Your task to perform on an android device: Go to accessibility settings Image 0: 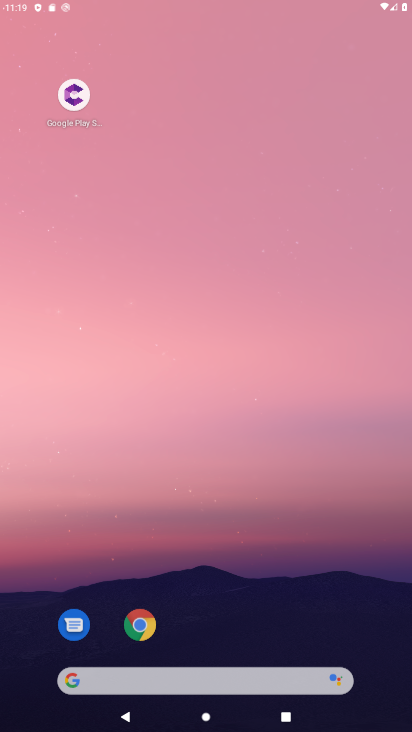
Step 0: press home button
Your task to perform on an android device: Go to accessibility settings Image 1: 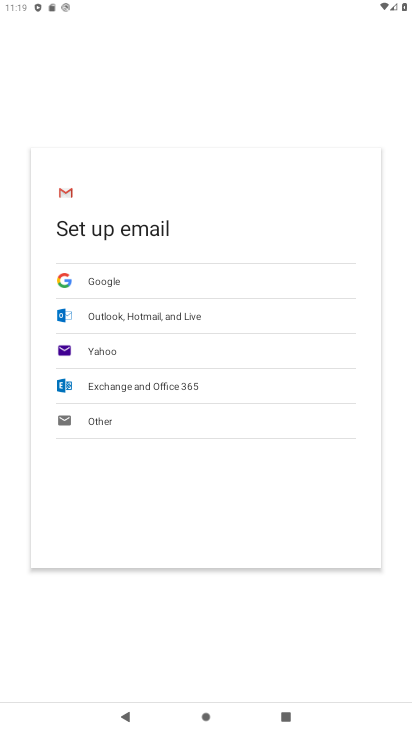
Step 1: press home button
Your task to perform on an android device: Go to accessibility settings Image 2: 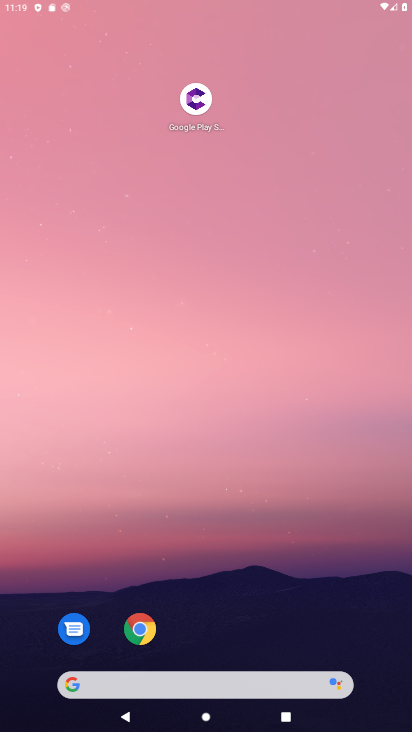
Step 2: press home button
Your task to perform on an android device: Go to accessibility settings Image 3: 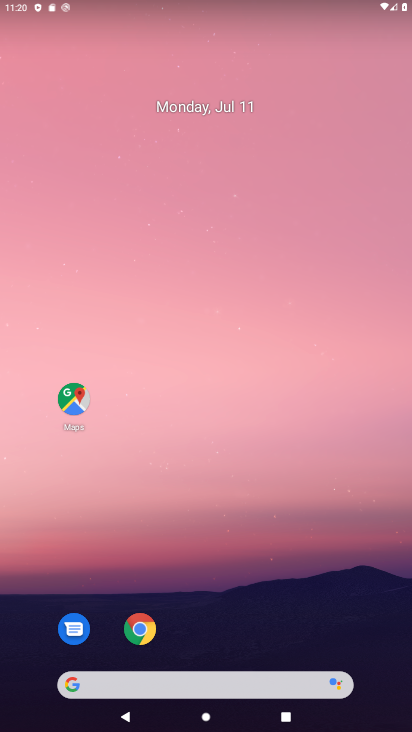
Step 3: drag from (236, 652) to (284, 40)
Your task to perform on an android device: Go to accessibility settings Image 4: 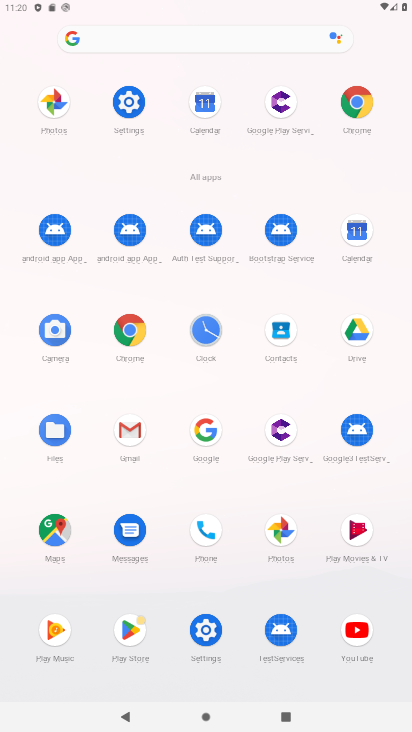
Step 4: click (192, 615)
Your task to perform on an android device: Go to accessibility settings Image 5: 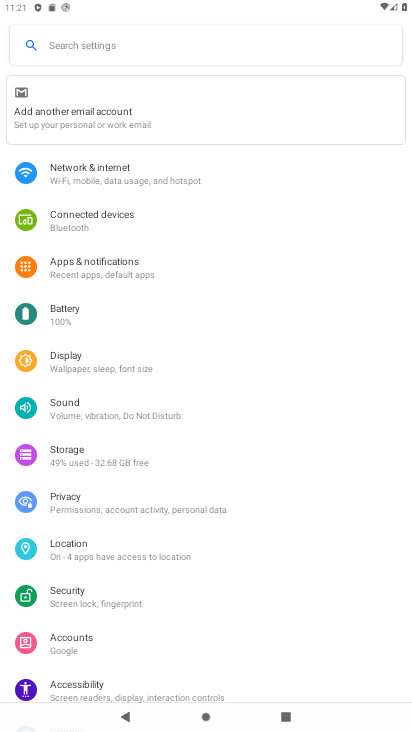
Step 5: click (86, 672)
Your task to perform on an android device: Go to accessibility settings Image 6: 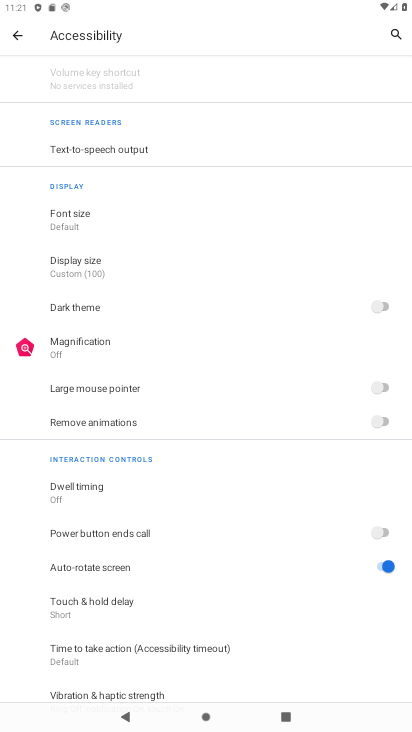
Step 6: task complete